Your task to perform on an android device: Open Amazon Image 0: 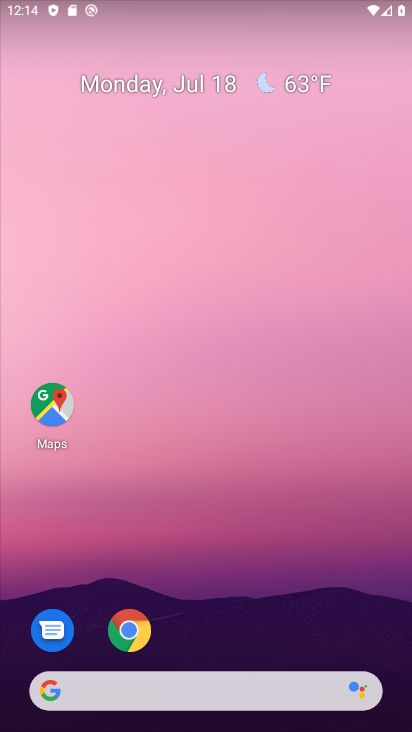
Step 0: click (123, 633)
Your task to perform on an android device: Open Amazon Image 1: 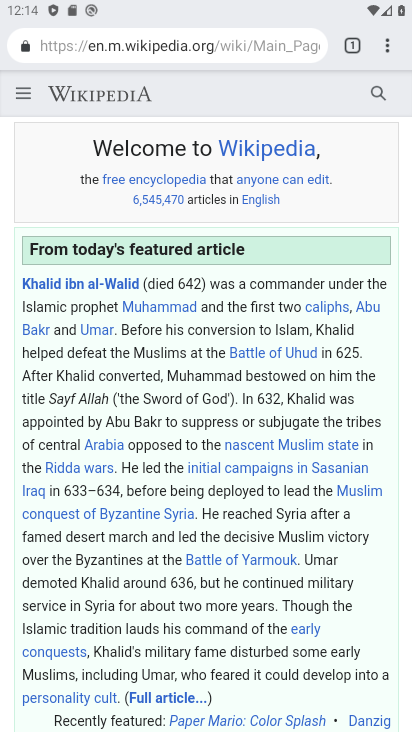
Step 1: click (344, 41)
Your task to perform on an android device: Open Amazon Image 2: 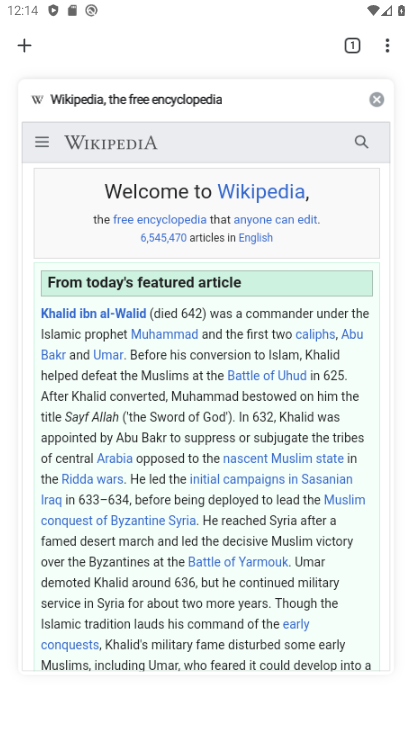
Step 2: click (30, 39)
Your task to perform on an android device: Open Amazon Image 3: 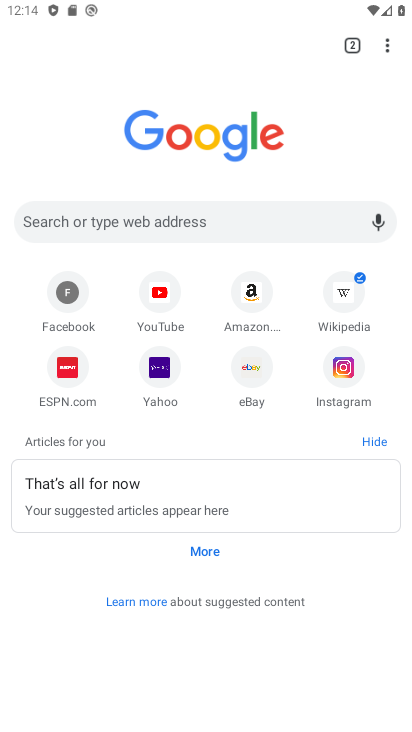
Step 3: click (246, 291)
Your task to perform on an android device: Open Amazon Image 4: 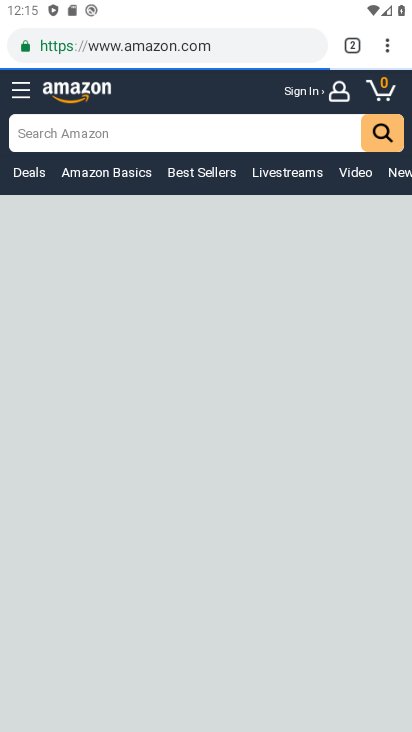
Step 4: task complete